Your task to perform on an android device: make emails show in primary in the gmail app Image 0: 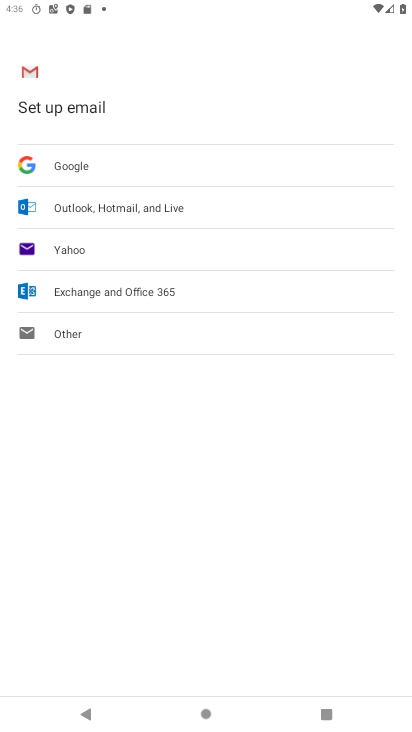
Step 0: press back button
Your task to perform on an android device: make emails show in primary in the gmail app Image 1: 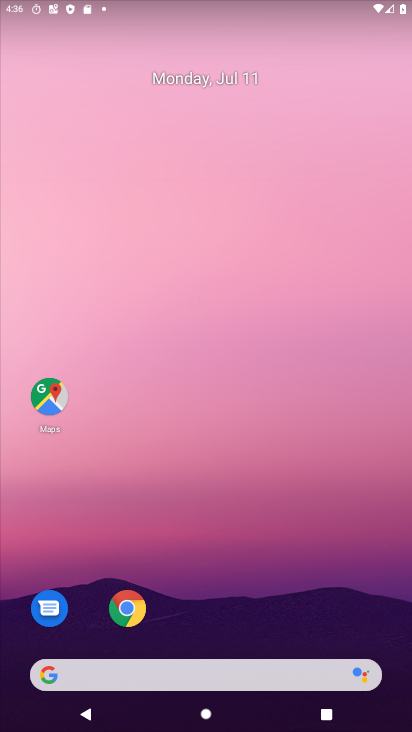
Step 1: drag from (201, 548) to (159, 222)
Your task to perform on an android device: make emails show in primary in the gmail app Image 2: 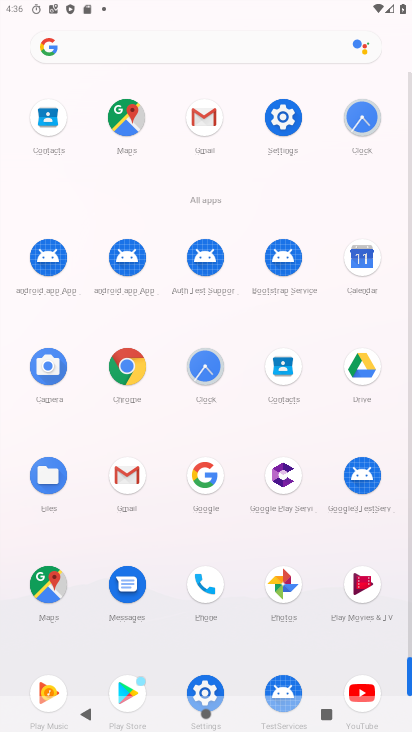
Step 2: click (138, 464)
Your task to perform on an android device: make emails show in primary in the gmail app Image 3: 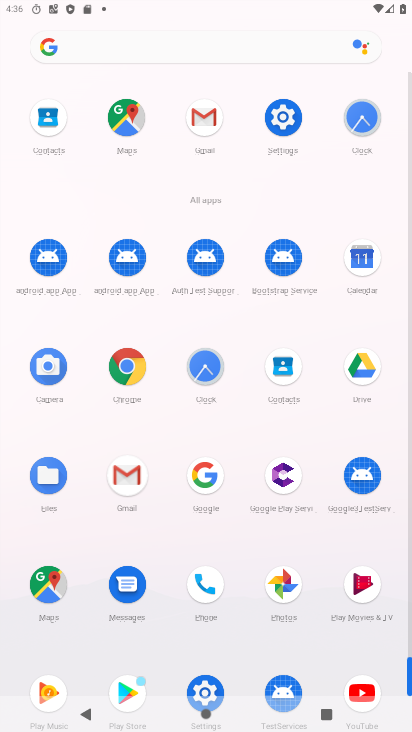
Step 3: click (131, 468)
Your task to perform on an android device: make emails show in primary in the gmail app Image 4: 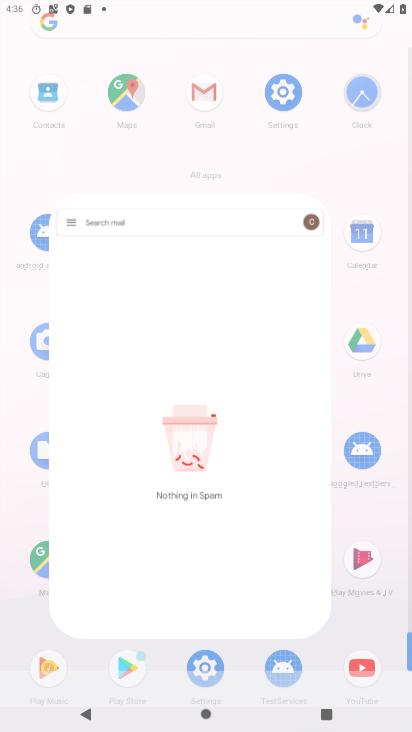
Step 4: click (130, 469)
Your task to perform on an android device: make emails show in primary in the gmail app Image 5: 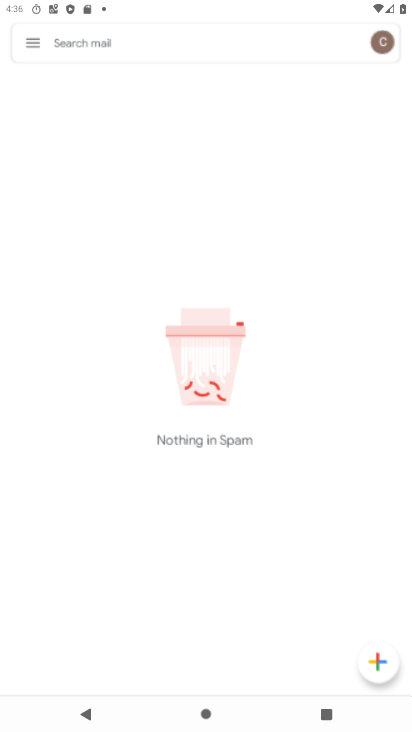
Step 5: click (128, 470)
Your task to perform on an android device: make emails show in primary in the gmail app Image 6: 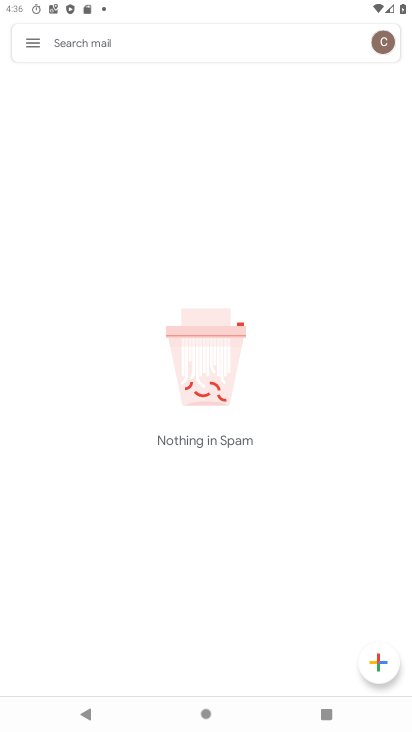
Step 6: click (34, 42)
Your task to perform on an android device: make emails show in primary in the gmail app Image 7: 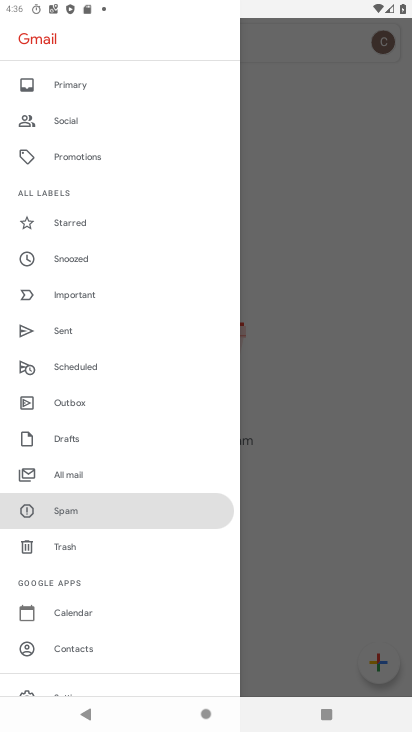
Step 7: click (64, 474)
Your task to perform on an android device: make emails show in primary in the gmail app Image 8: 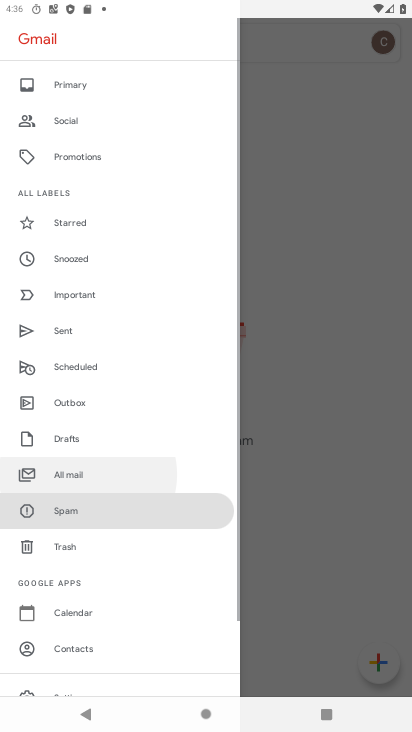
Step 8: click (64, 474)
Your task to perform on an android device: make emails show in primary in the gmail app Image 9: 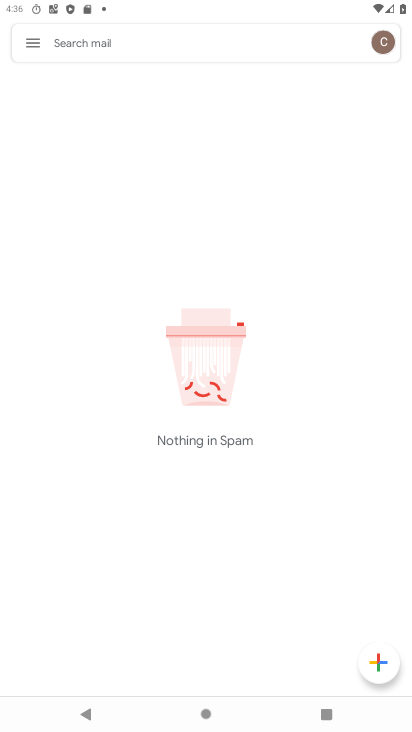
Step 9: click (64, 474)
Your task to perform on an android device: make emails show in primary in the gmail app Image 10: 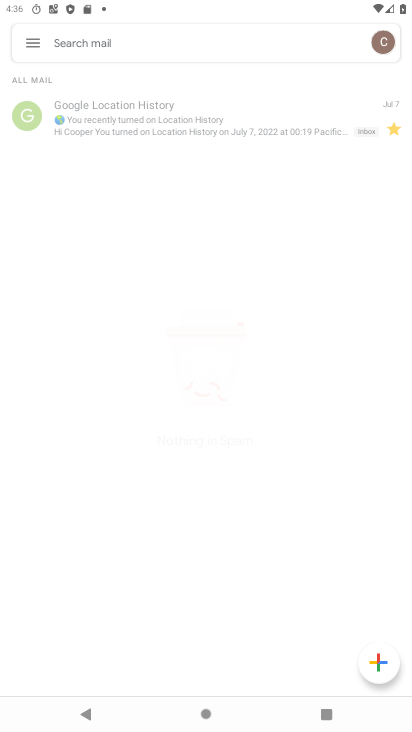
Step 10: click (64, 474)
Your task to perform on an android device: make emails show in primary in the gmail app Image 11: 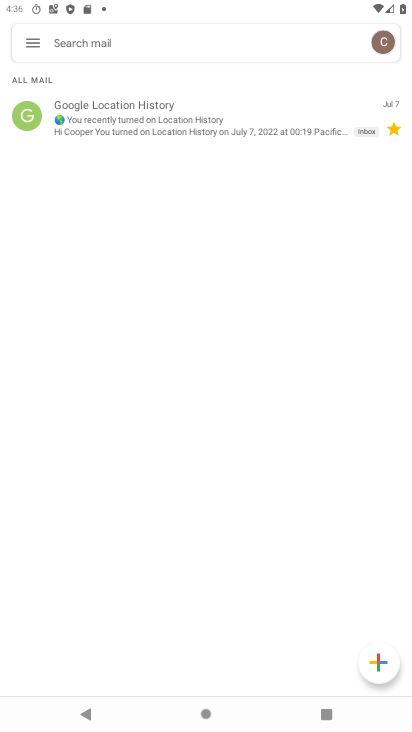
Step 11: click (32, 39)
Your task to perform on an android device: make emails show in primary in the gmail app Image 12: 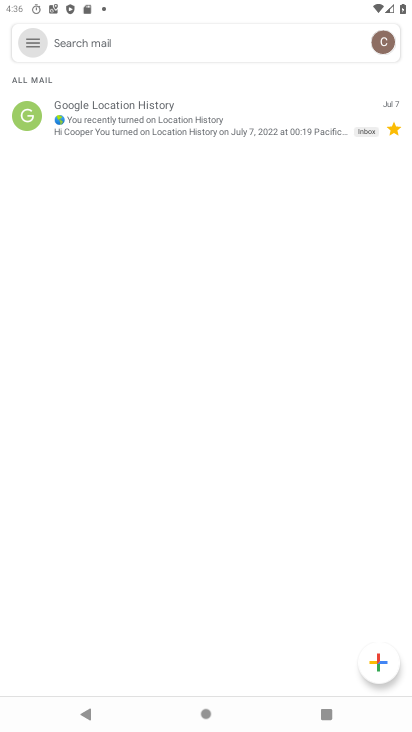
Step 12: click (31, 39)
Your task to perform on an android device: make emails show in primary in the gmail app Image 13: 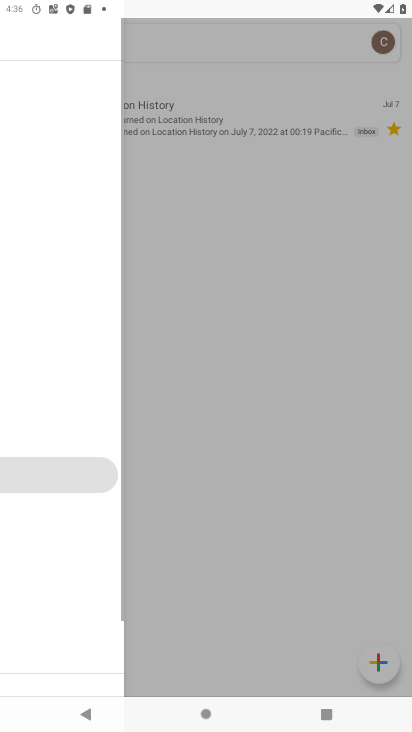
Step 13: click (31, 39)
Your task to perform on an android device: make emails show in primary in the gmail app Image 14: 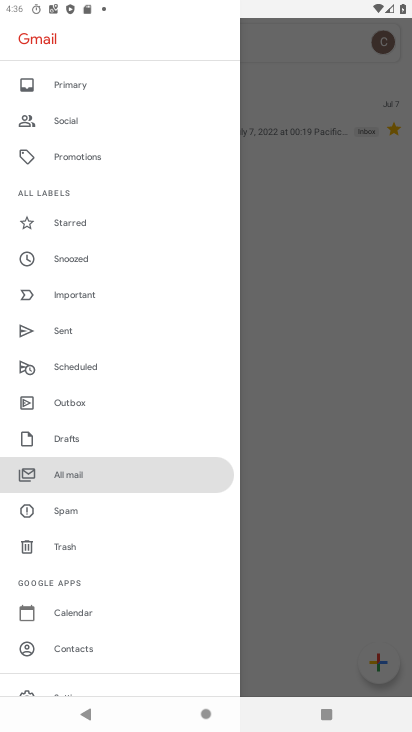
Step 14: drag from (104, 596) to (128, 216)
Your task to perform on an android device: make emails show in primary in the gmail app Image 15: 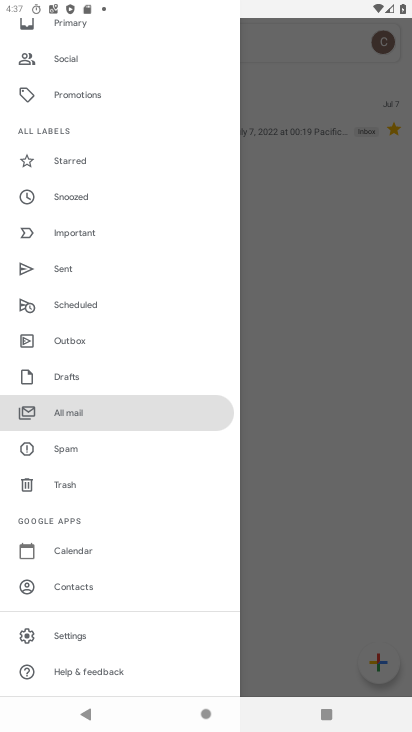
Step 15: click (70, 638)
Your task to perform on an android device: make emails show in primary in the gmail app Image 16: 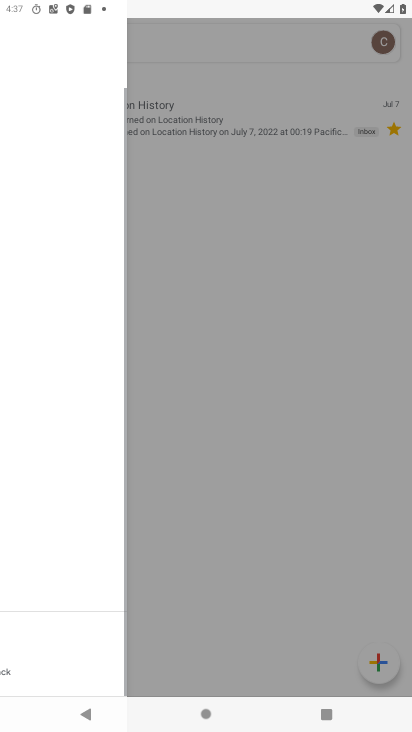
Step 16: click (68, 635)
Your task to perform on an android device: make emails show in primary in the gmail app Image 17: 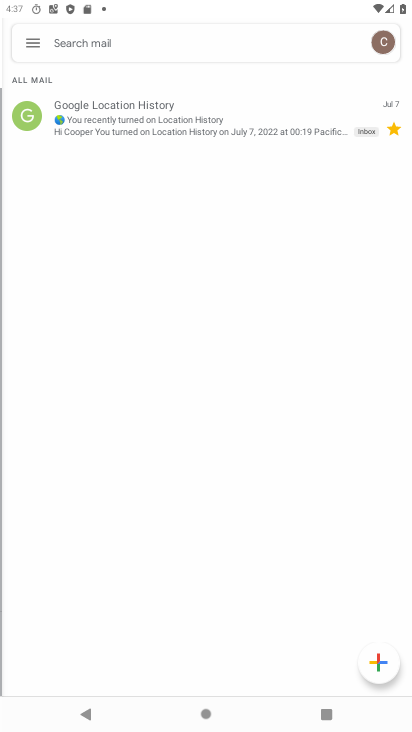
Step 17: click (69, 634)
Your task to perform on an android device: make emails show in primary in the gmail app Image 18: 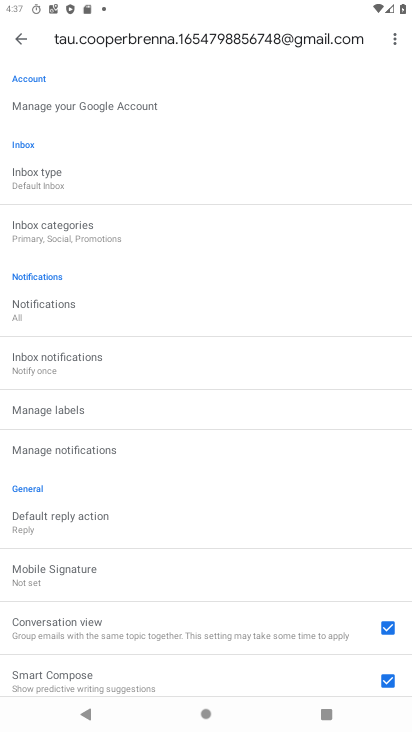
Step 18: click (58, 229)
Your task to perform on an android device: make emails show in primary in the gmail app Image 19: 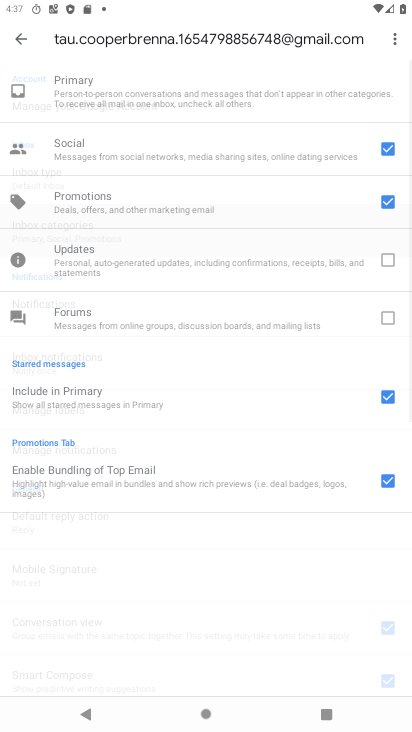
Step 19: click (58, 229)
Your task to perform on an android device: make emails show in primary in the gmail app Image 20: 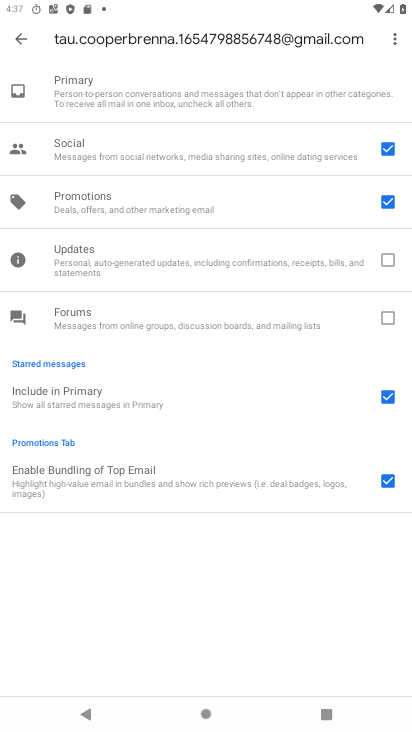
Step 20: click (12, 42)
Your task to perform on an android device: make emails show in primary in the gmail app Image 21: 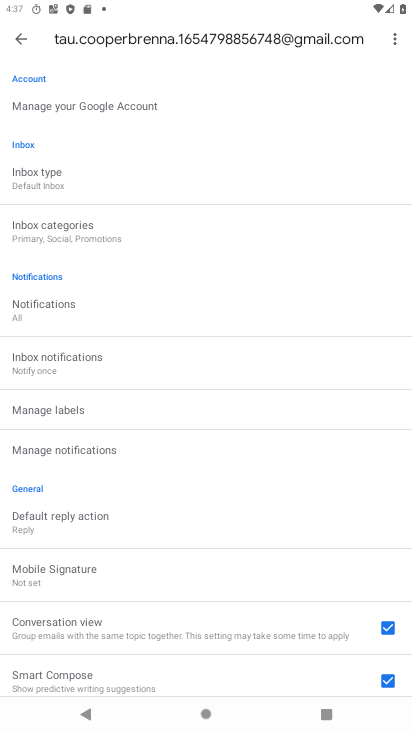
Step 21: click (36, 178)
Your task to perform on an android device: make emails show in primary in the gmail app Image 22: 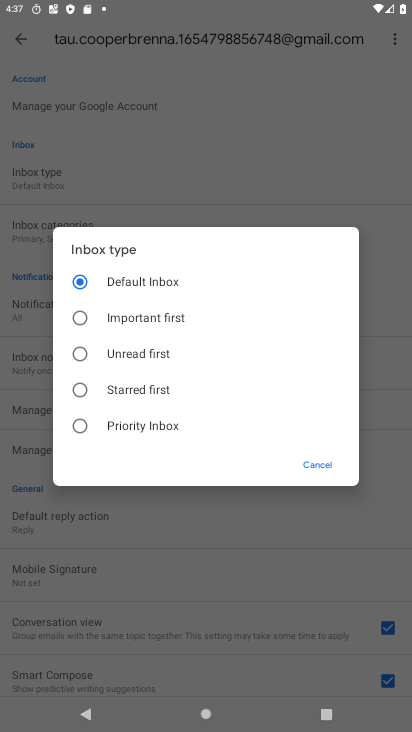
Step 22: click (74, 424)
Your task to perform on an android device: make emails show in primary in the gmail app Image 23: 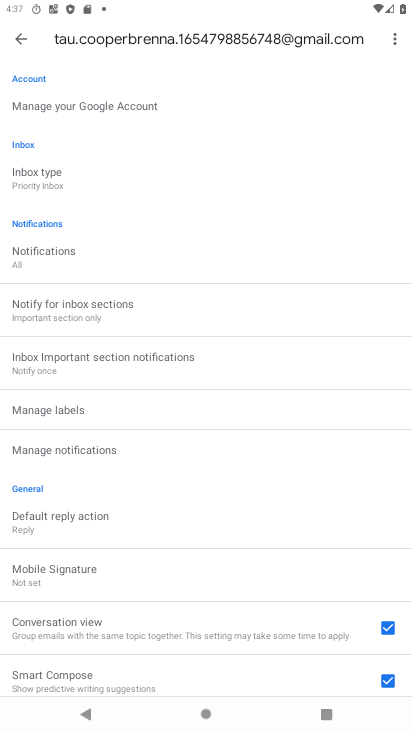
Step 23: task complete